Your task to perform on an android device: Go to Google maps Image 0: 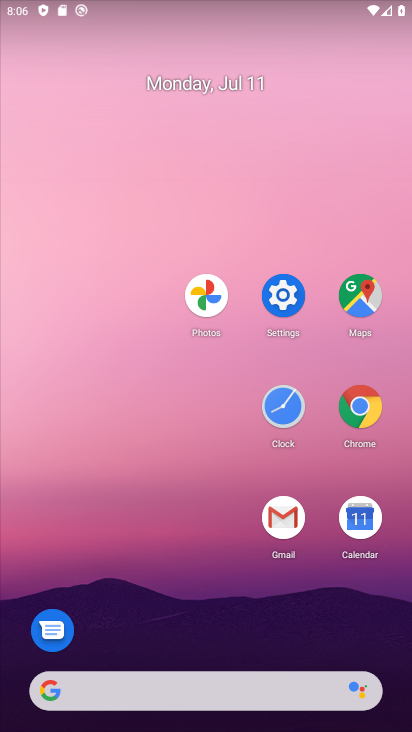
Step 0: click (278, 272)
Your task to perform on an android device: Go to Google maps Image 1: 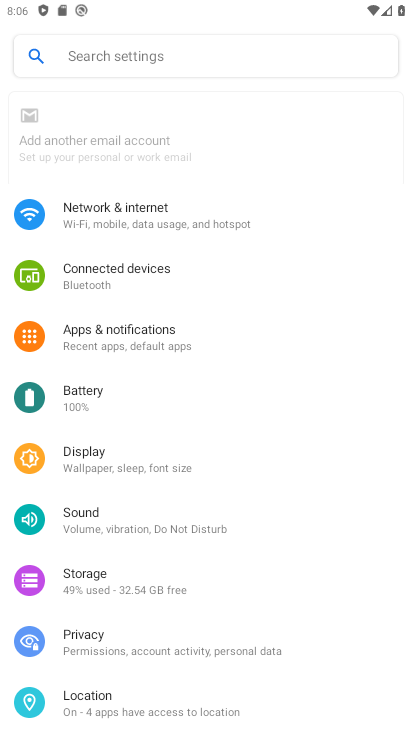
Step 1: press home button
Your task to perform on an android device: Go to Google maps Image 2: 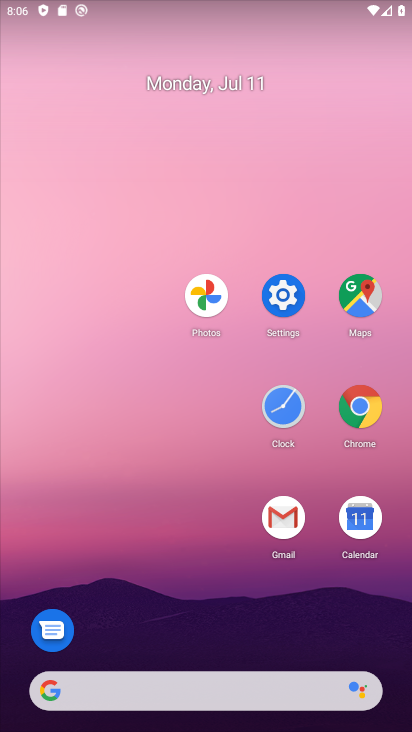
Step 2: drag from (215, 619) to (244, 126)
Your task to perform on an android device: Go to Google maps Image 3: 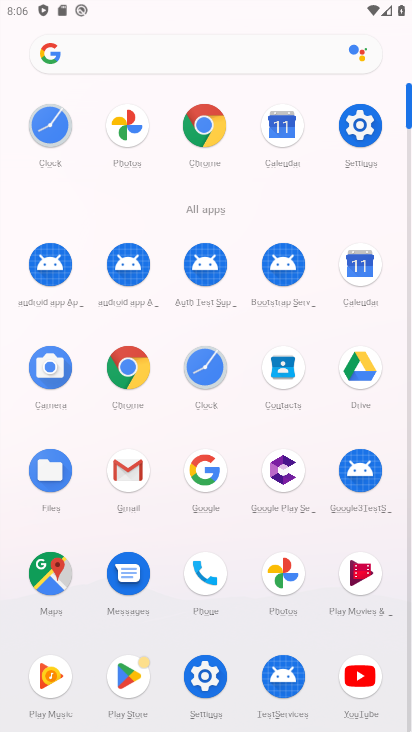
Step 3: drag from (55, 582) to (211, 485)
Your task to perform on an android device: Go to Google maps Image 4: 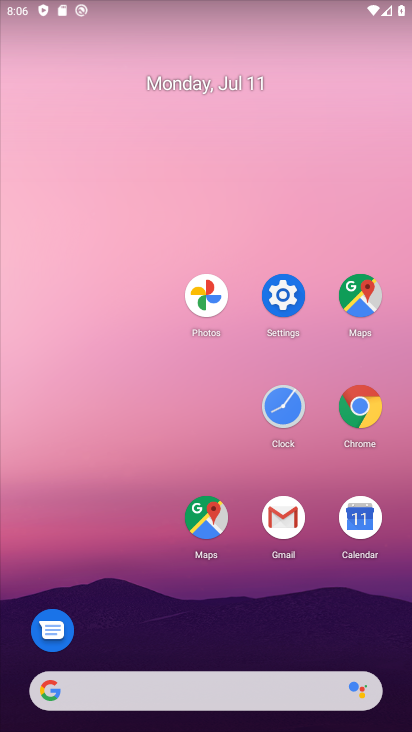
Step 4: click (197, 524)
Your task to perform on an android device: Go to Google maps Image 5: 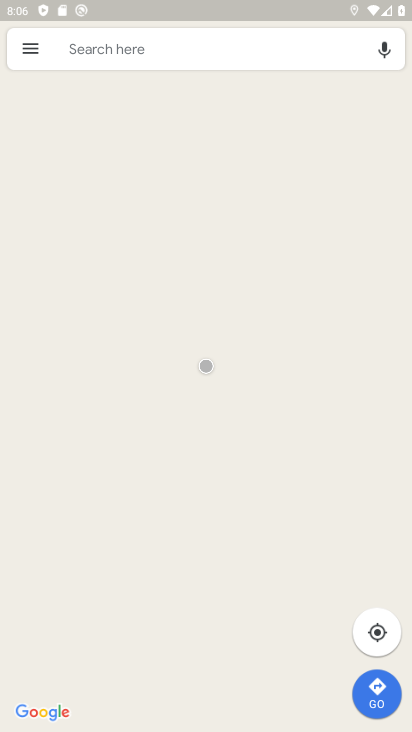
Step 5: task complete